Your task to perform on an android device: star an email in the gmail app Image 0: 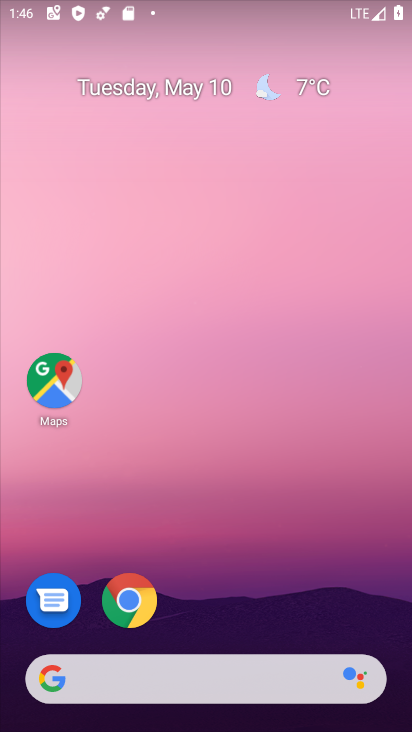
Step 0: drag from (196, 684) to (286, 168)
Your task to perform on an android device: star an email in the gmail app Image 1: 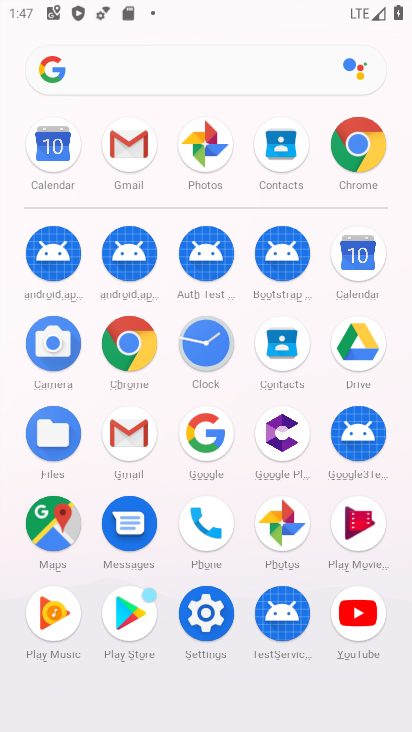
Step 1: click (133, 158)
Your task to perform on an android device: star an email in the gmail app Image 2: 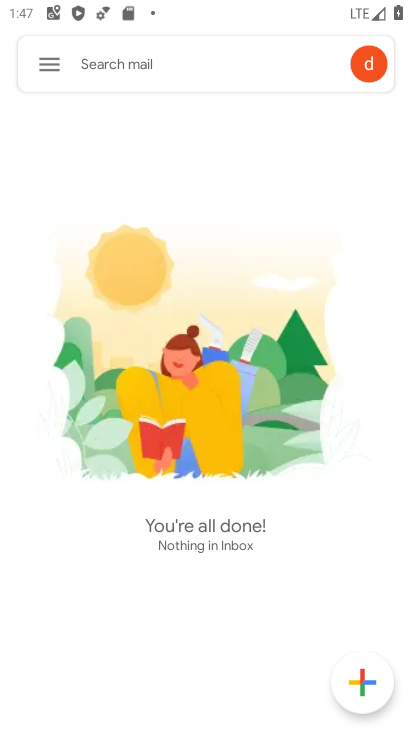
Step 2: task complete